Your task to perform on an android device: move a message to another label in the gmail app Image 0: 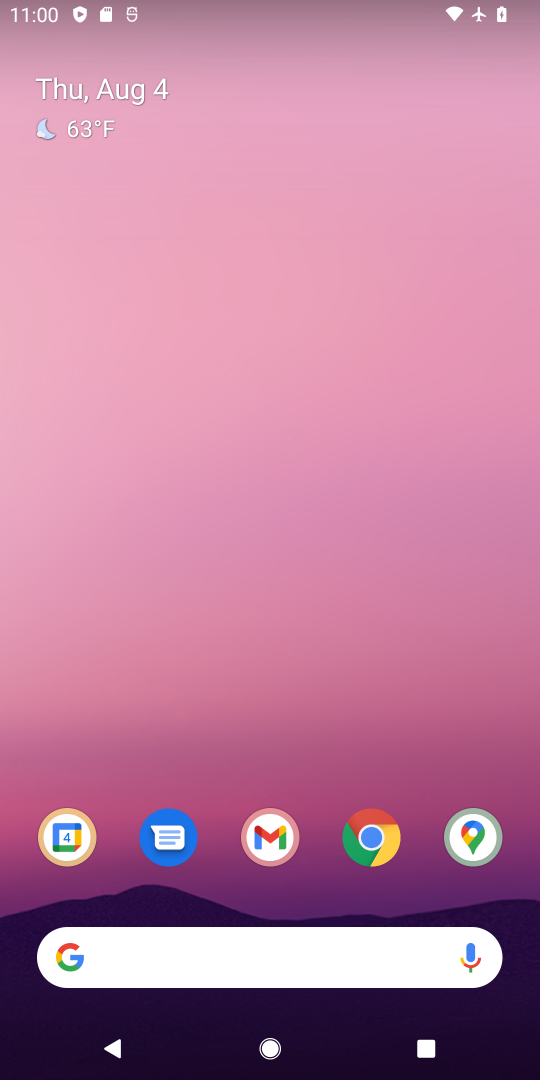
Step 0: press home button
Your task to perform on an android device: move a message to another label in the gmail app Image 1: 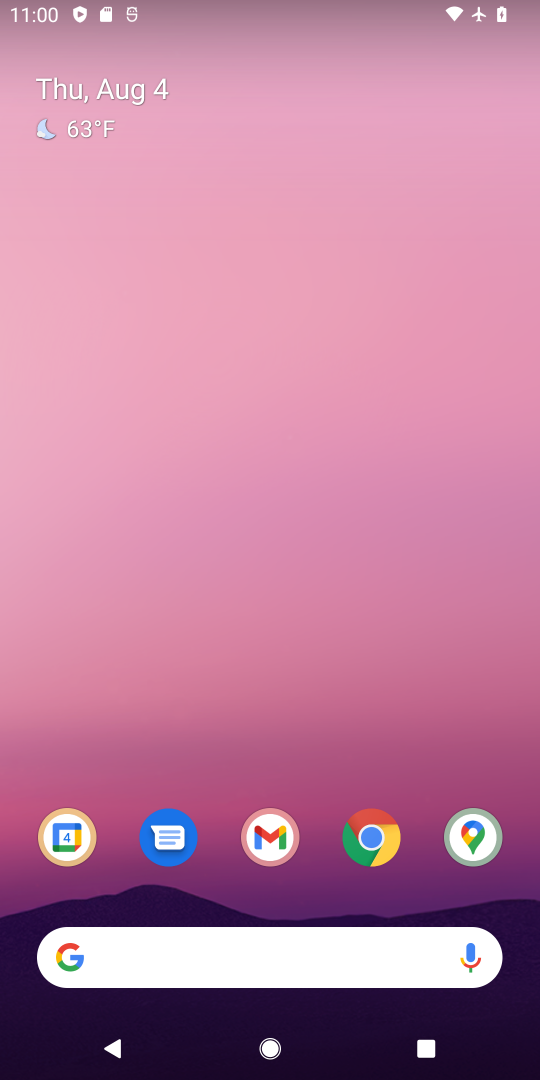
Step 1: drag from (218, 900) to (232, 142)
Your task to perform on an android device: move a message to another label in the gmail app Image 2: 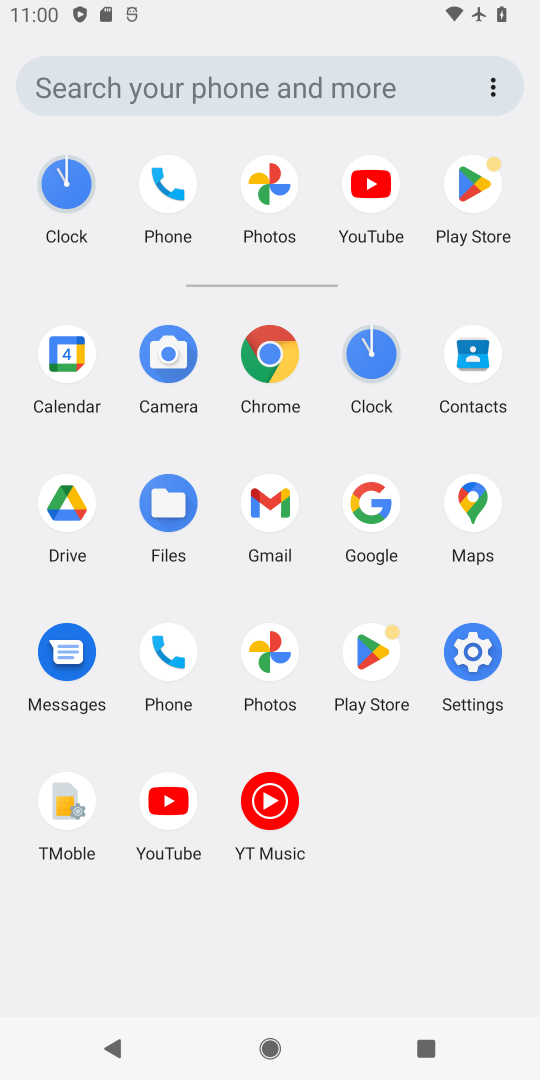
Step 2: click (266, 495)
Your task to perform on an android device: move a message to another label in the gmail app Image 3: 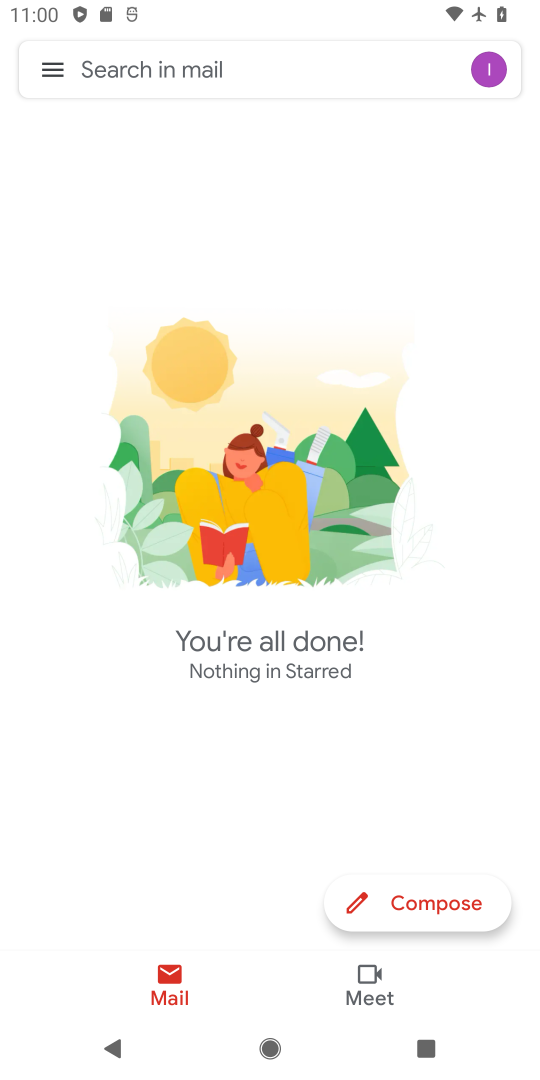
Step 3: click (51, 68)
Your task to perform on an android device: move a message to another label in the gmail app Image 4: 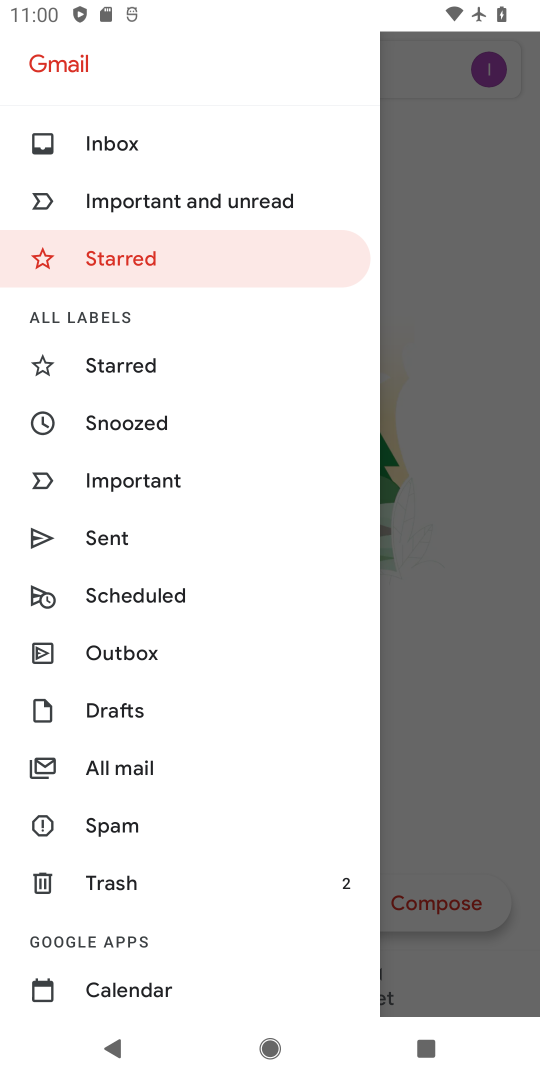
Step 4: click (155, 764)
Your task to perform on an android device: move a message to another label in the gmail app Image 5: 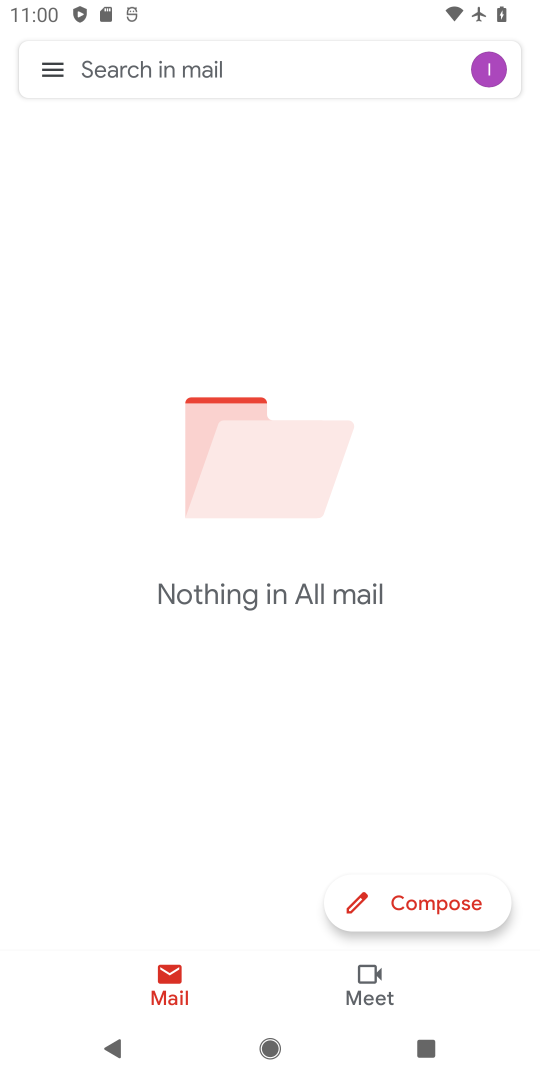
Step 5: task complete